Your task to perform on an android device: delete the emails in spam in the gmail app Image 0: 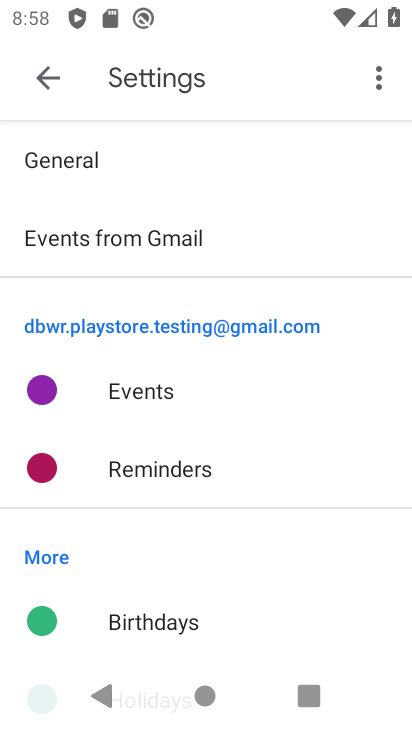
Step 0: press home button
Your task to perform on an android device: delete the emails in spam in the gmail app Image 1: 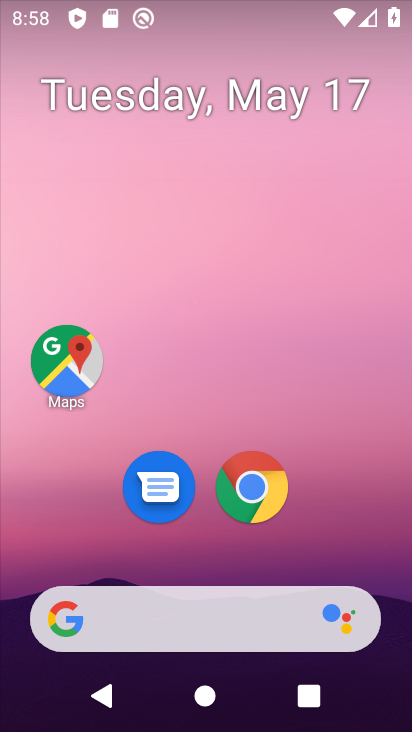
Step 1: drag from (280, 649) to (259, 206)
Your task to perform on an android device: delete the emails in spam in the gmail app Image 2: 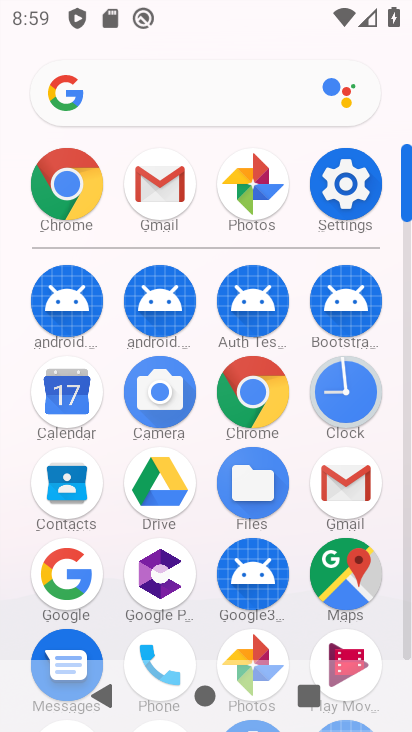
Step 2: click (348, 471)
Your task to perform on an android device: delete the emails in spam in the gmail app Image 3: 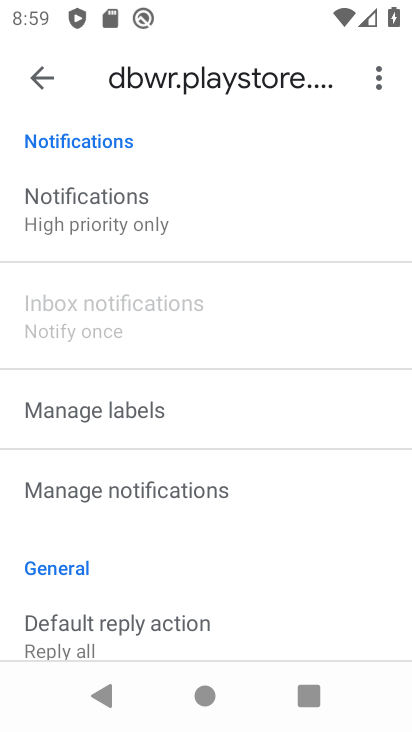
Step 3: click (25, 83)
Your task to perform on an android device: delete the emails in spam in the gmail app Image 4: 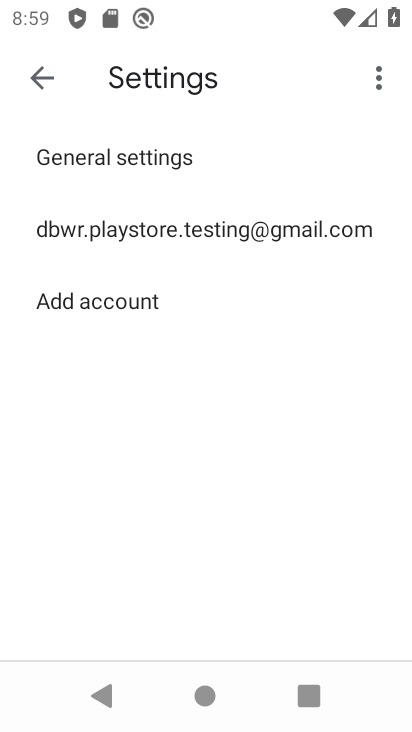
Step 4: click (29, 79)
Your task to perform on an android device: delete the emails in spam in the gmail app Image 5: 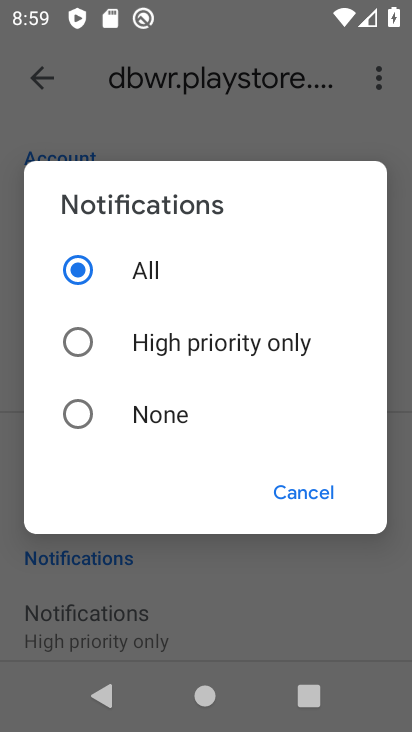
Step 5: click (316, 492)
Your task to perform on an android device: delete the emails in spam in the gmail app Image 6: 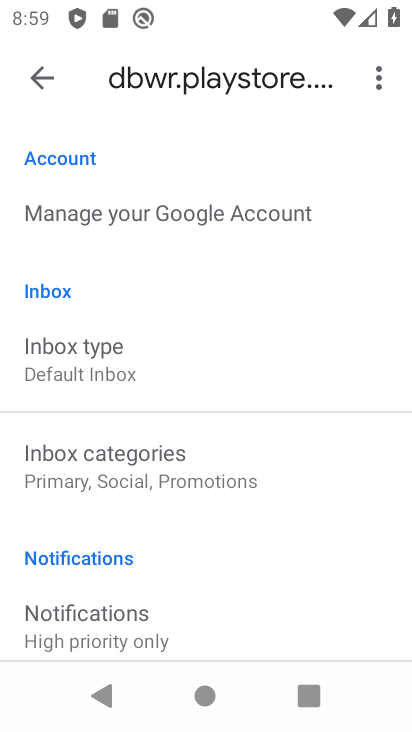
Step 6: click (52, 87)
Your task to perform on an android device: delete the emails in spam in the gmail app Image 7: 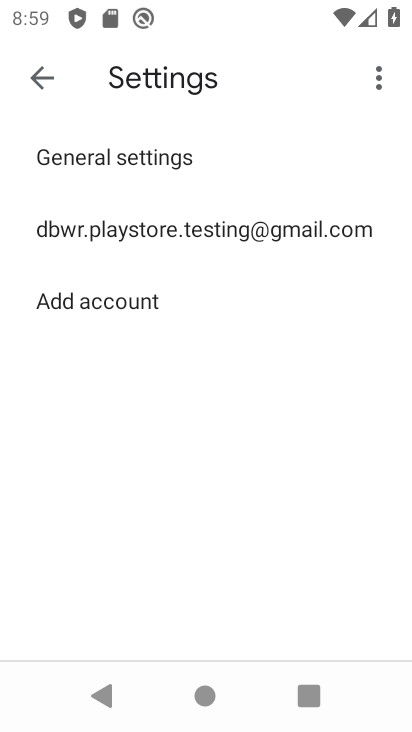
Step 7: click (47, 87)
Your task to perform on an android device: delete the emails in spam in the gmail app Image 8: 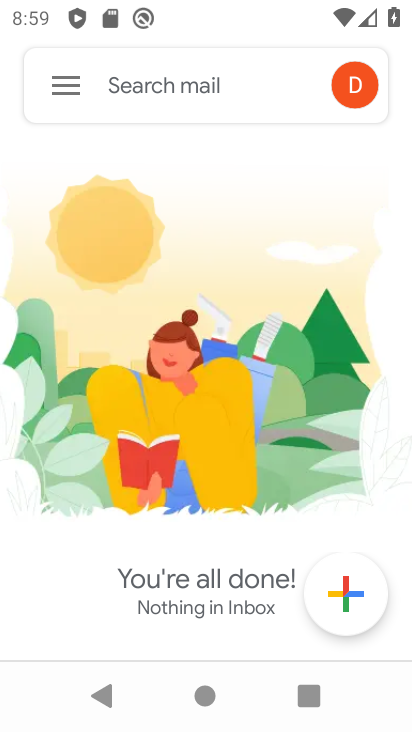
Step 8: click (56, 86)
Your task to perform on an android device: delete the emails in spam in the gmail app Image 9: 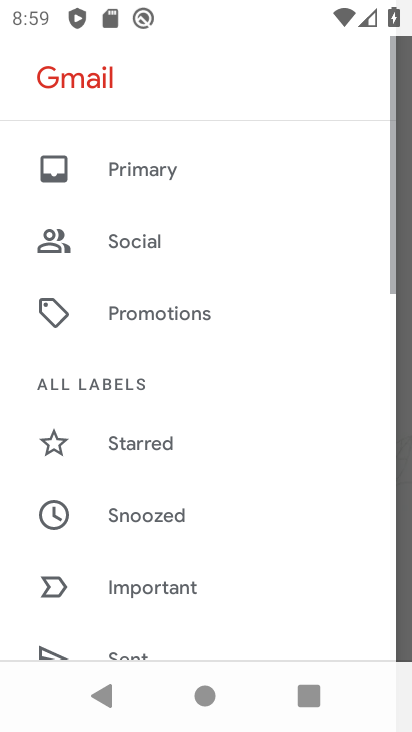
Step 9: drag from (161, 494) to (162, 152)
Your task to perform on an android device: delete the emails in spam in the gmail app Image 10: 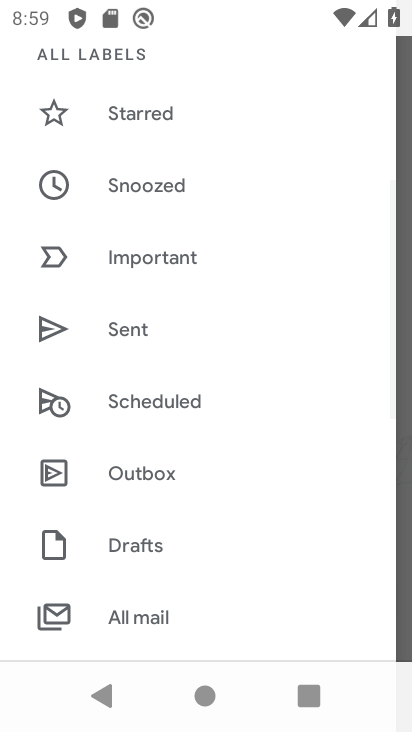
Step 10: drag from (190, 501) to (180, 328)
Your task to perform on an android device: delete the emails in spam in the gmail app Image 11: 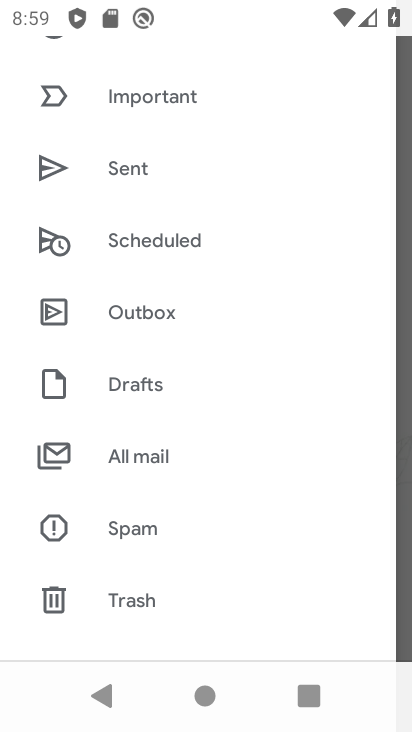
Step 11: click (109, 537)
Your task to perform on an android device: delete the emails in spam in the gmail app Image 12: 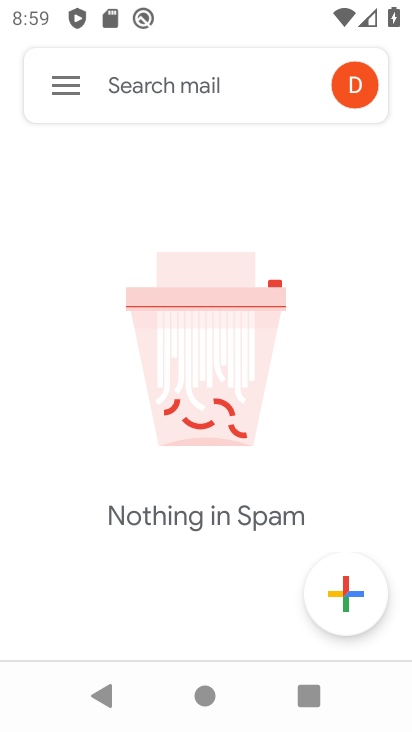
Step 12: task complete